Your task to perform on an android device: Open a new window in Chrome Image 0: 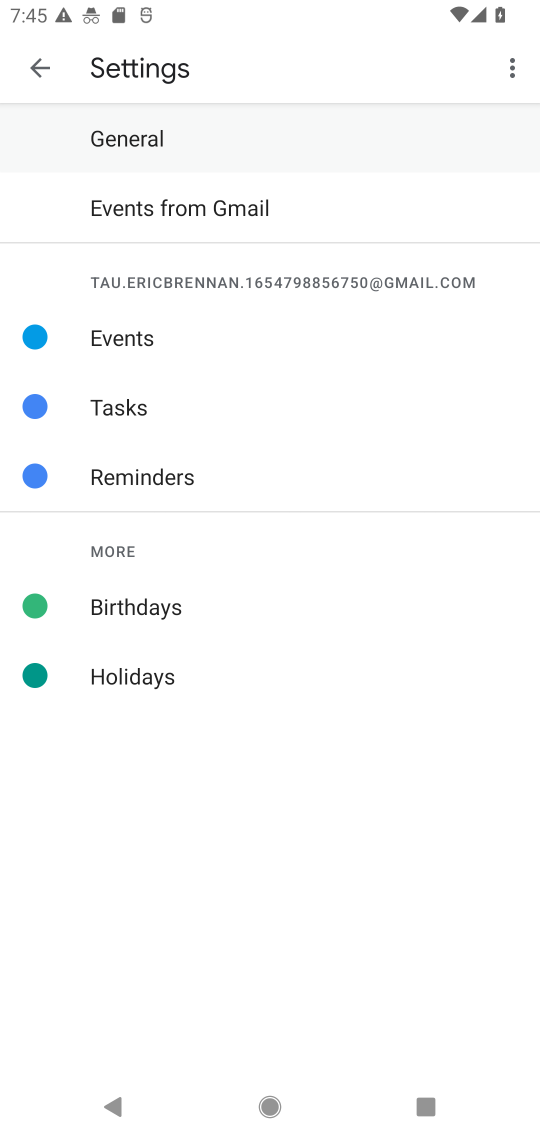
Step 0: press home button
Your task to perform on an android device: Open a new window in Chrome Image 1: 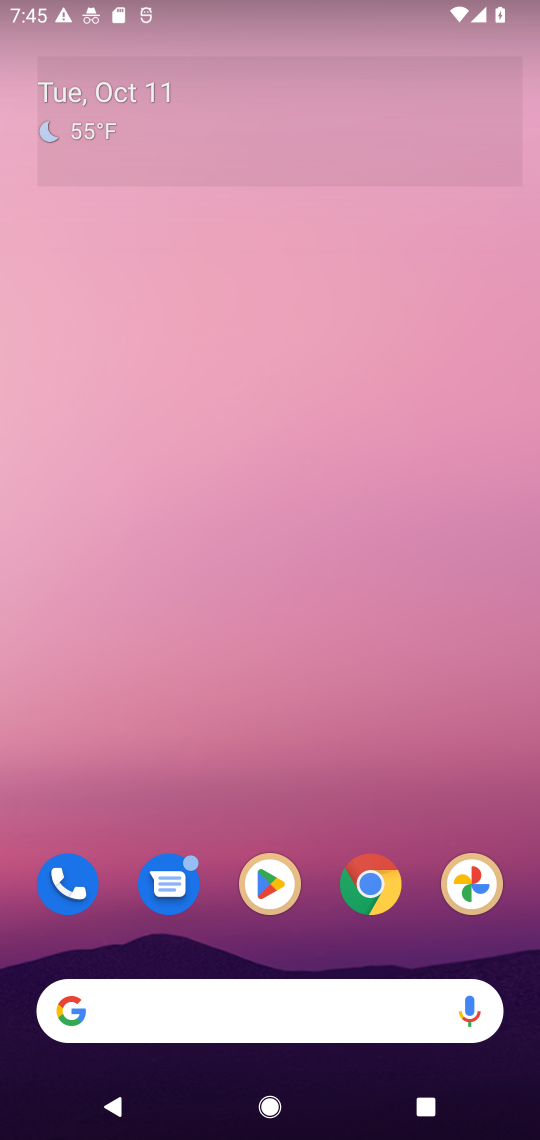
Step 1: drag from (339, 967) to (315, 118)
Your task to perform on an android device: Open a new window in Chrome Image 2: 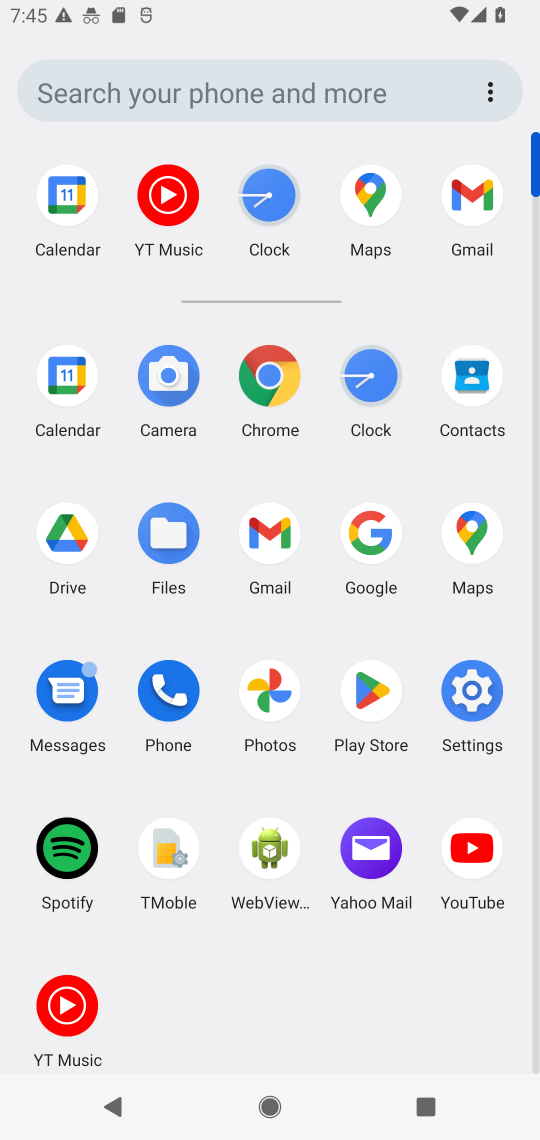
Step 2: click (266, 378)
Your task to perform on an android device: Open a new window in Chrome Image 3: 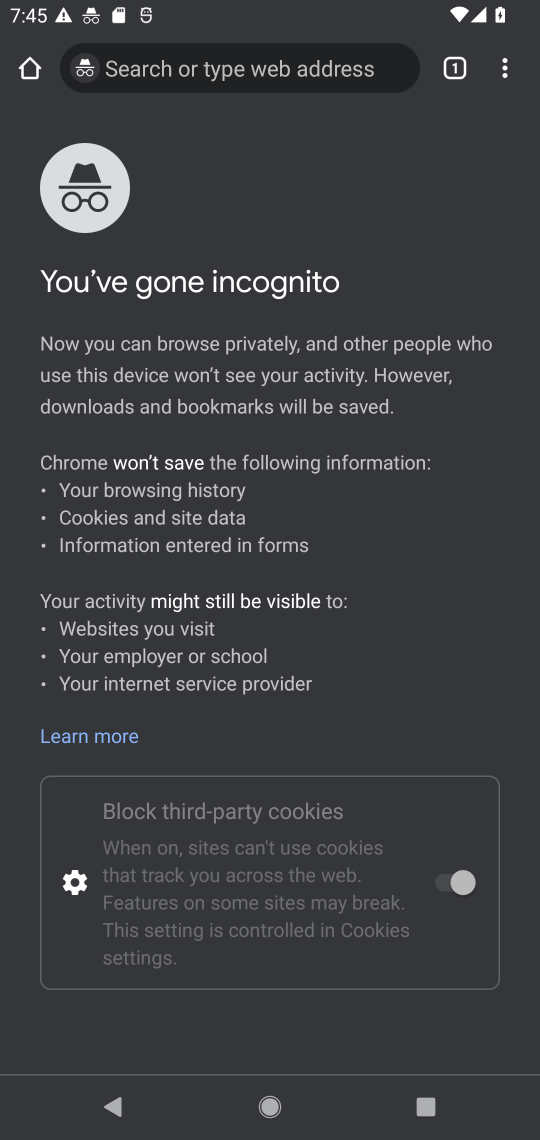
Step 3: task complete